Your task to perform on an android device: set default search engine in the chrome app Image 0: 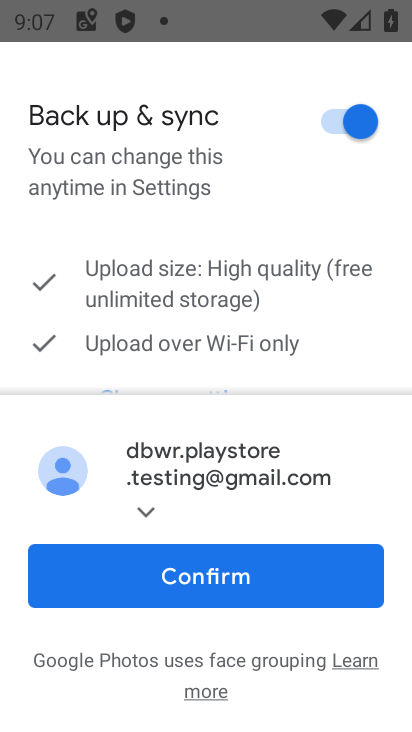
Step 0: press home button
Your task to perform on an android device: set default search engine in the chrome app Image 1: 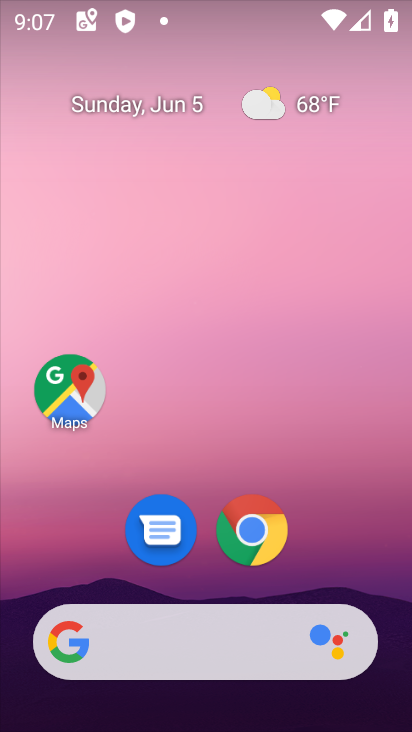
Step 1: click (254, 532)
Your task to perform on an android device: set default search engine in the chrome app Image 2: 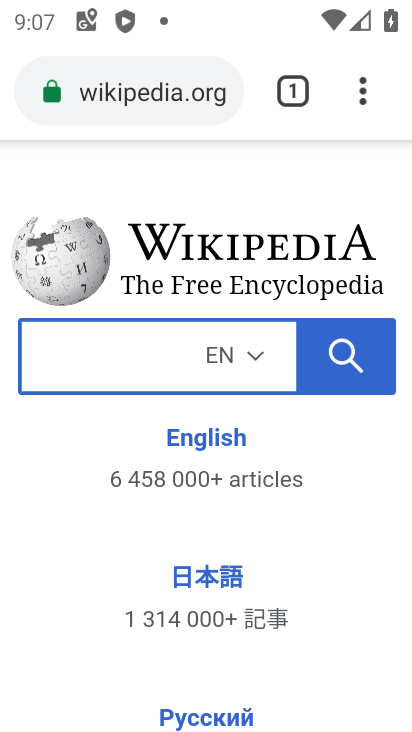
Step 2: click (358, 95)
Your task to perform on an android device: set default search engine in the chrome app Image 3: 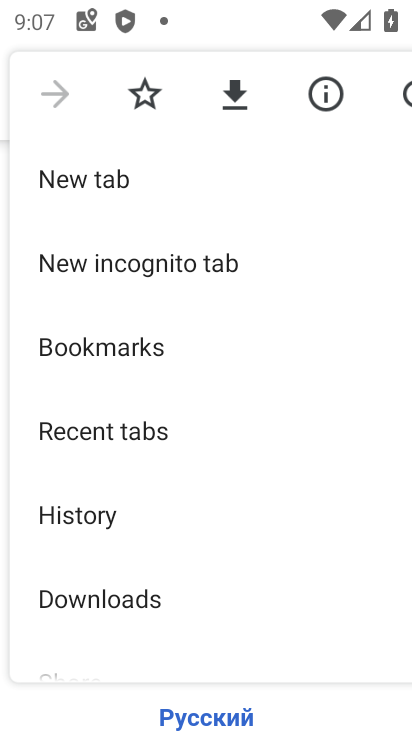
Step 3: drag from (167, 592) to (255, 79)
Your task to perform on an android device: set default search engine in the chrome app Image 4: 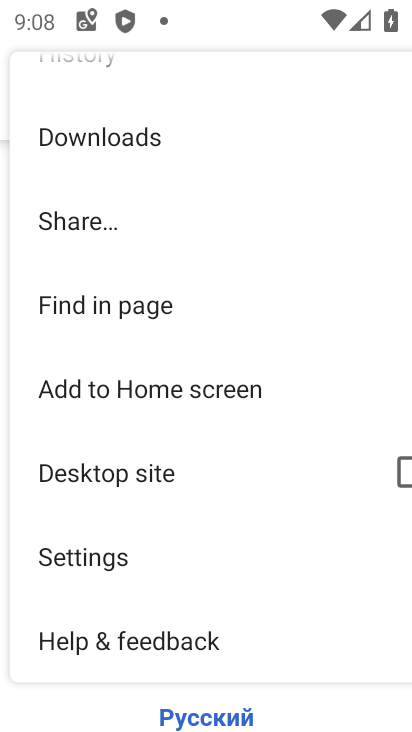
Step 4: click (104, 557)
Your task to perform on an android device: set default search engine in the chrome app Image 5: 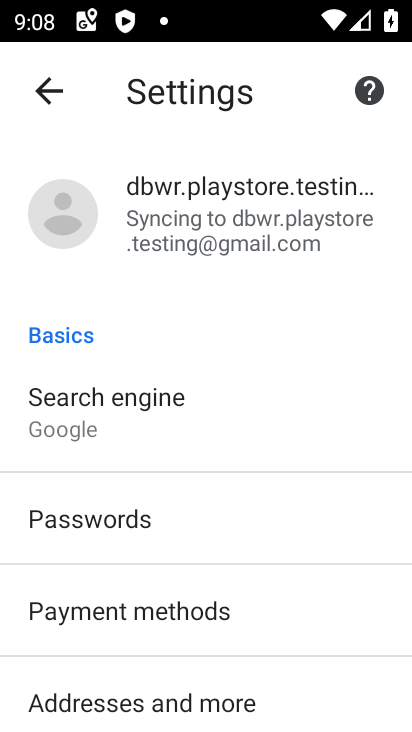
Step 5: click (74, 402)
Your task to perform on an android device: set default search engine in the chrome app Image 6: 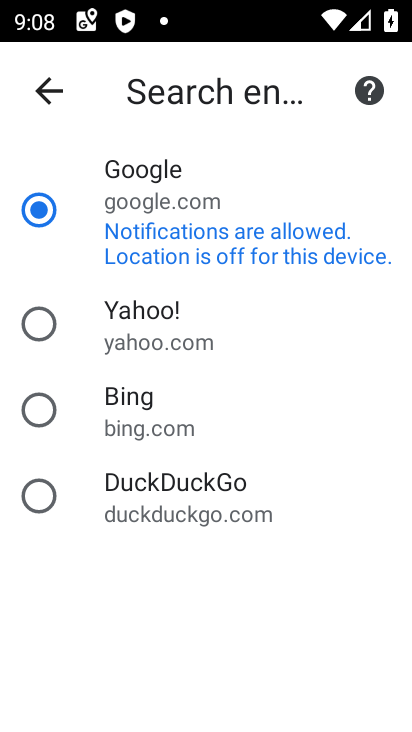
Step 6: click (41, 327)
Your task to perform on an android device: set default search engine in the chrome app Image 7: 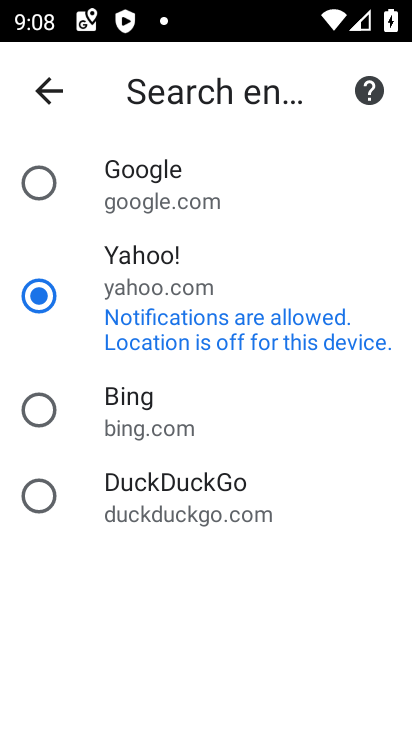
Step 7: task complete